Your task to perform on an android device: Open my contact list Image 0: 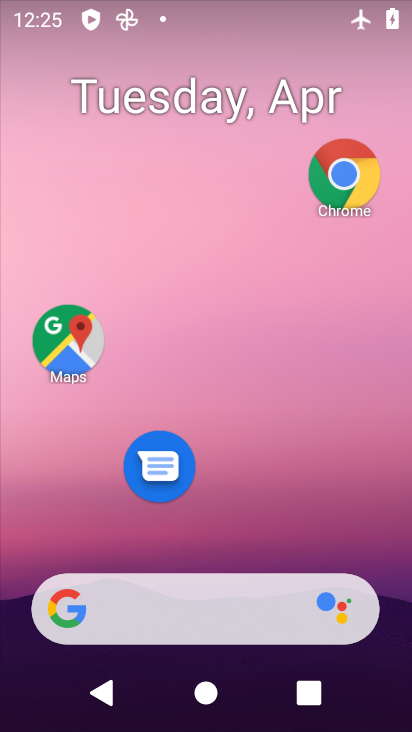
Step 0: drag from (224, 597) to (277, 22)
Your task to perform on an android device: Open my contact list Image 1: 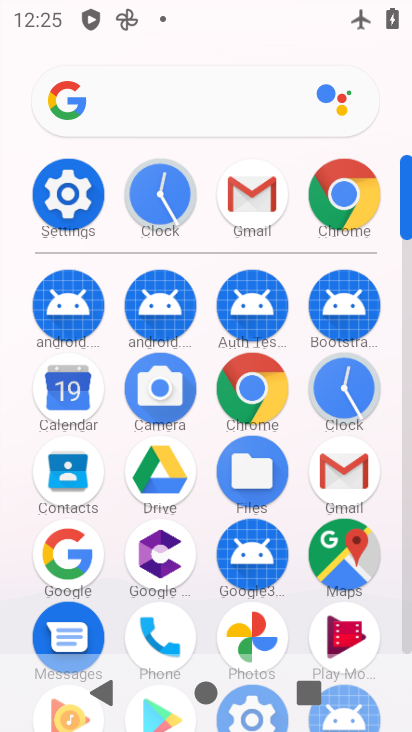
Step 1: click (88, 476)
Your task to perform on an android device: Open my contact list Image 2: 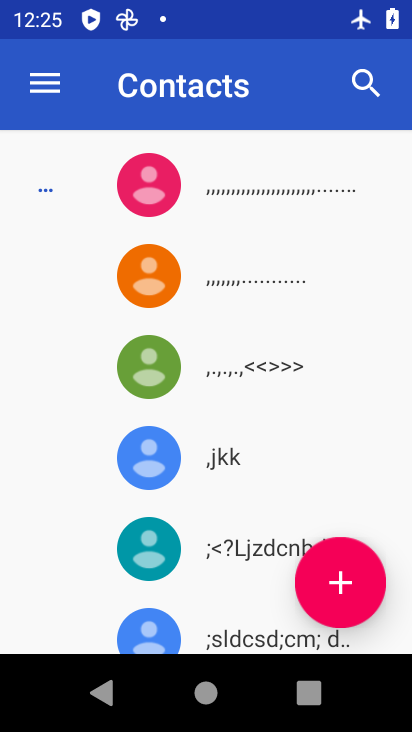
Step 2: task complete